Your task to perform on an android device: Open Google Image 0: 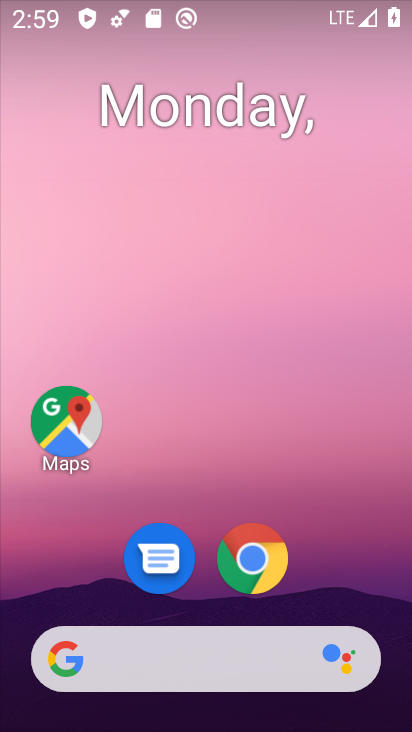
Step 0: drag from (360, 607) to (331, 21)
Your task to perform on an android device: Open Google Image 1: 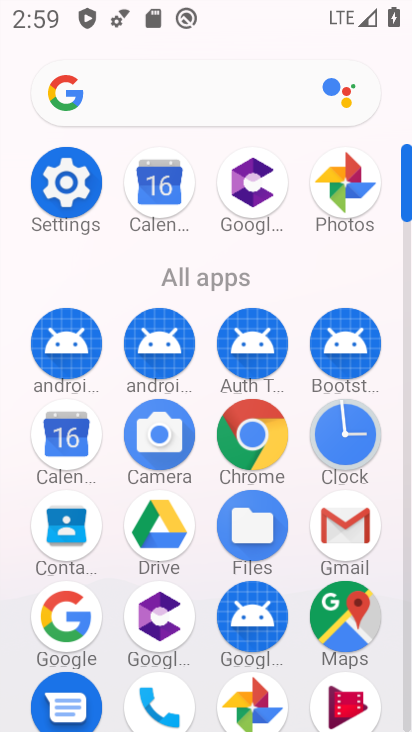
Step 1: click (65, 626)
Your task to perform on an android device: Open Google Image 2: 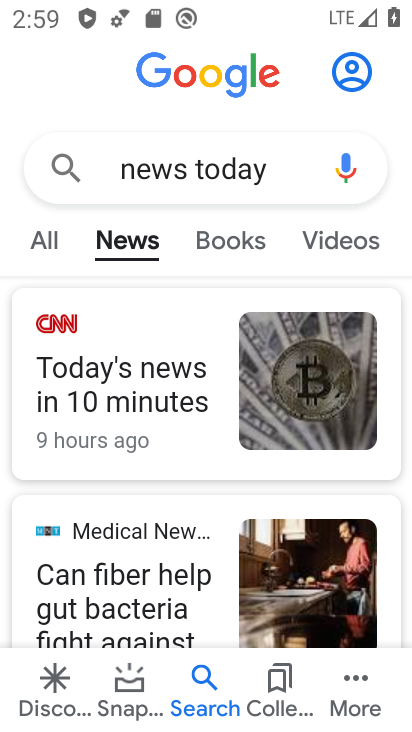
Step 2: task complete